Your task to perform on an android device: Search for seafood restaurants on Google Maps Image 0: 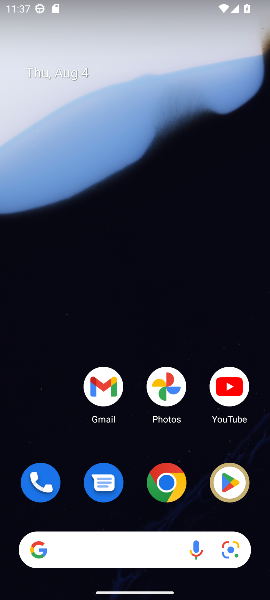
Step 0: drag from (134, 453) to (138, 139)
Your task to perform on an android device: Search for seafood restaurants on Google Maps Image 1: 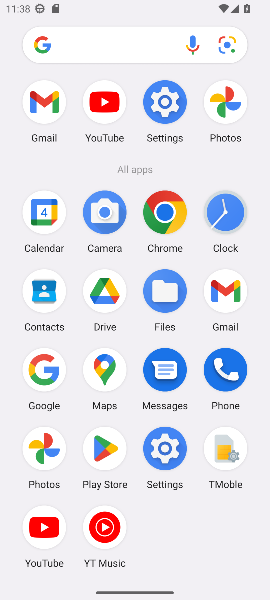
Step 1: click (101, 357)
Your task to perform on an android device: Search for seafood restaurants on Google Maps Image 2: 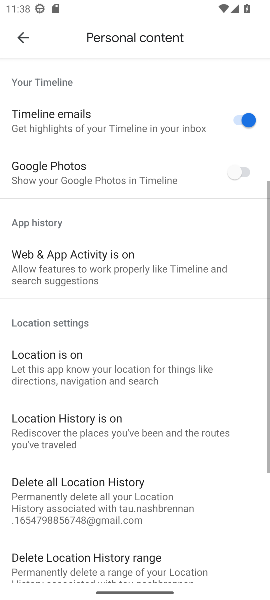
Step 2: click (14, 41)
Your task to perform on an android device: Search for seafood restaurants on Google Maps Image 3: 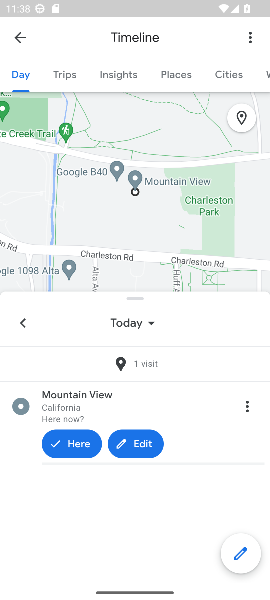
Step 3: click (25, 41)
Your task to perform on an android device: Search for seafood restaurants on Google Maps Image 4: 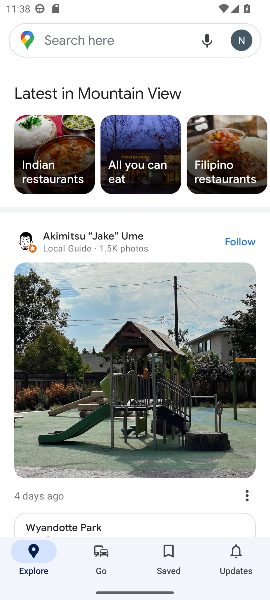
Step 4: click (95, 31)
Your task to perform on an android device: Search for seafood restaurants on Google Maps Image 5: 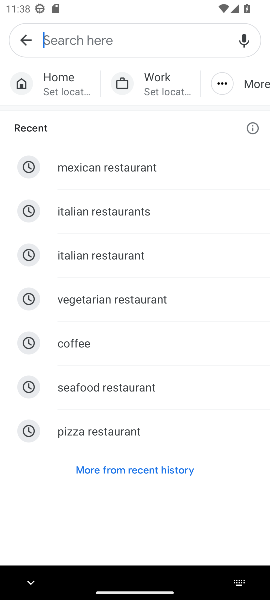
Step 5: click (134, 380)
Your task to perform on an android device: Search for seafood restaurants on Google Maps Image 6: 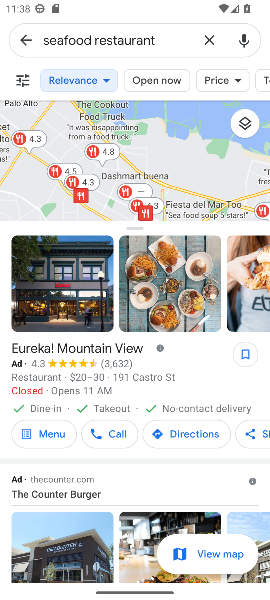
Step 6: task complete